Your task to perform on an android device: Open Google Image 0: 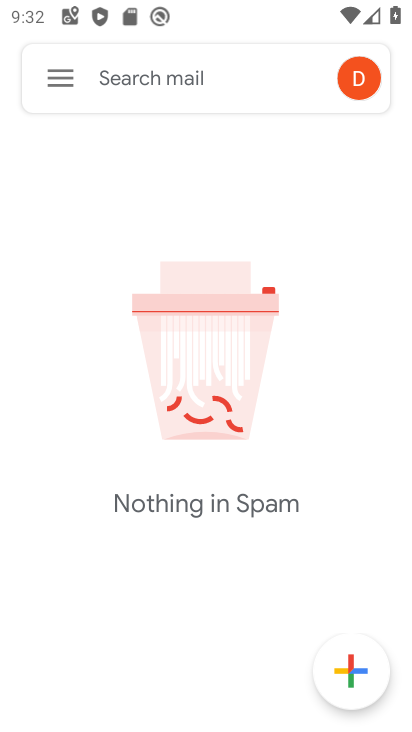
Step 0: press home button
Your task to perform on an android device: Open Google Image 1: 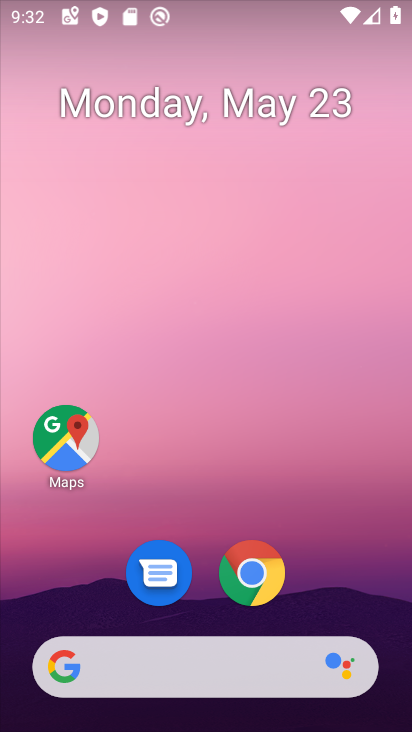
Step 1: drag from (377, 610) to (347, 209)
Your task to perform on an android device: Open Google Image 2: 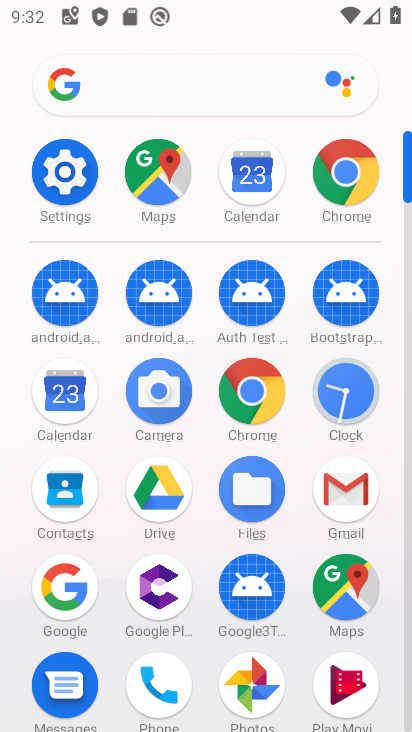
Step 2: drag from (389, 647) to (376, 419)
Your task to perform on an android device: Open Google Image 3: 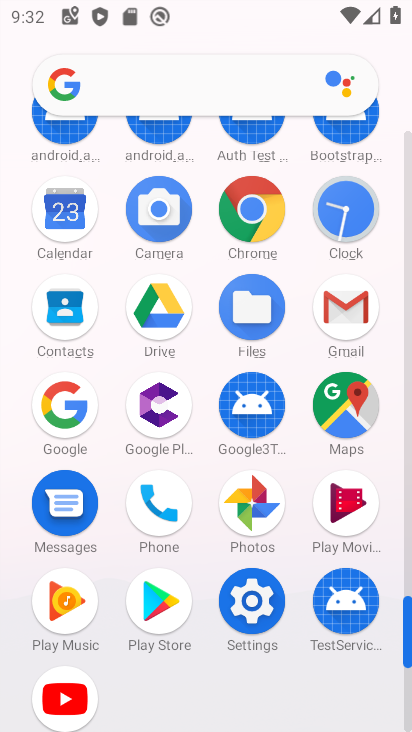
Step 3: drag from (389, 589) to (384, 463)
Your task to perform on an android device: Open Google Image 4: 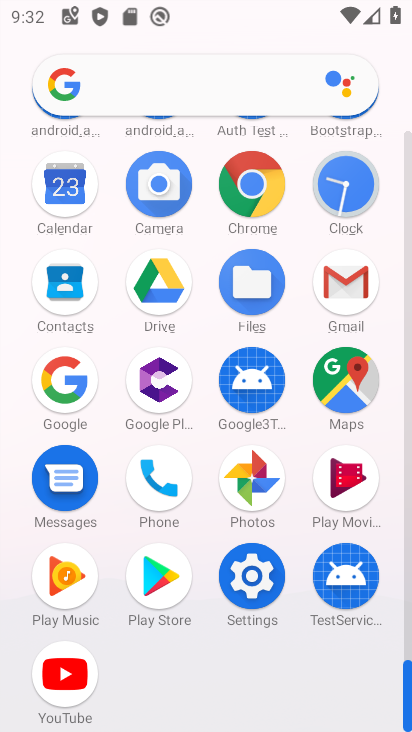
Step 4: drag from (397, 303) to (384, 470)
Your task to perform on an android device: Open Google Image 5: 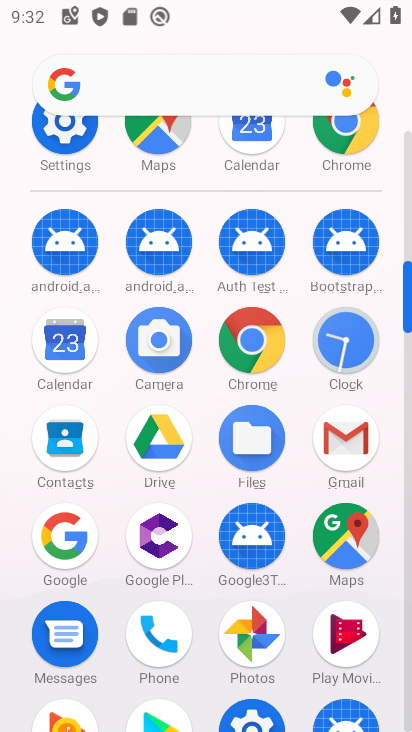
Step 5: click (68, 535)
Your task to perform on an android device: Open Google Image 6: 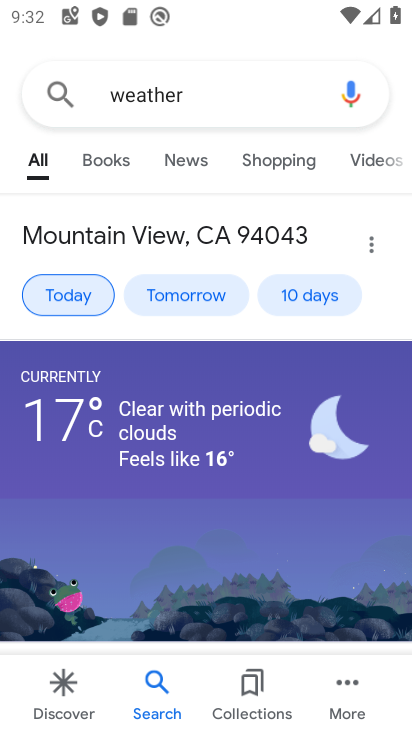
Step 6: task complete